Your task to perform on an android device: allow cookies in the chrome app Image 0: 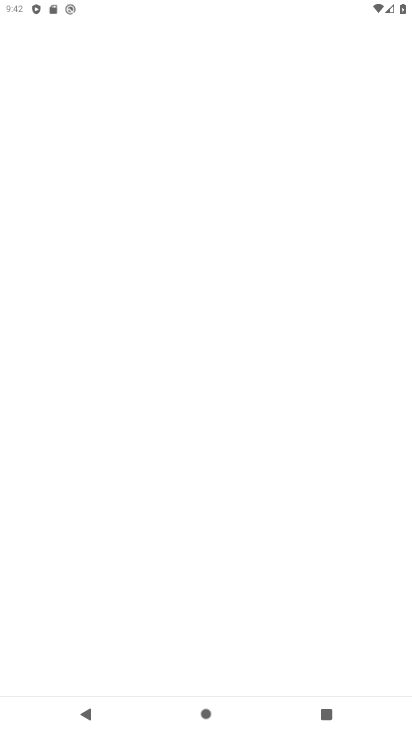
Step 0: click (297, 634)
Your task to perform on an android device: allow cookies in the chrome app Image 1: 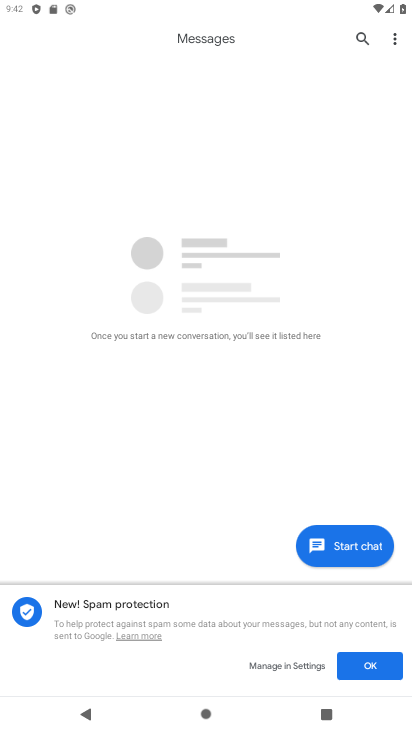
Step 1: press home button
Your task to perform on an android device: allow cookies in the chrome app Image 2: 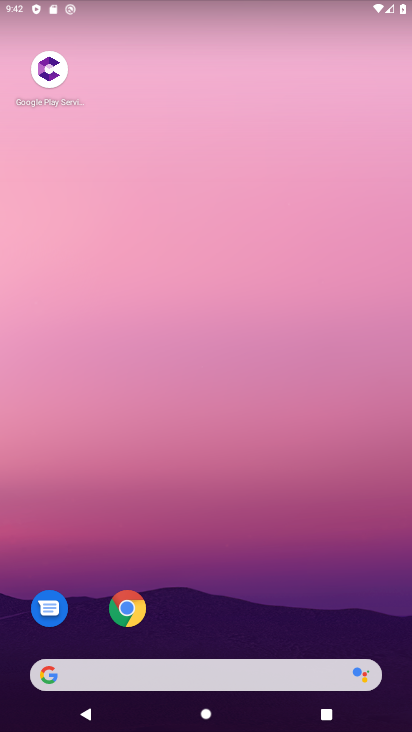
Step 2: click (121, 608)
Your task to perform on an android device: allow cookies in the chrome app Image 3: 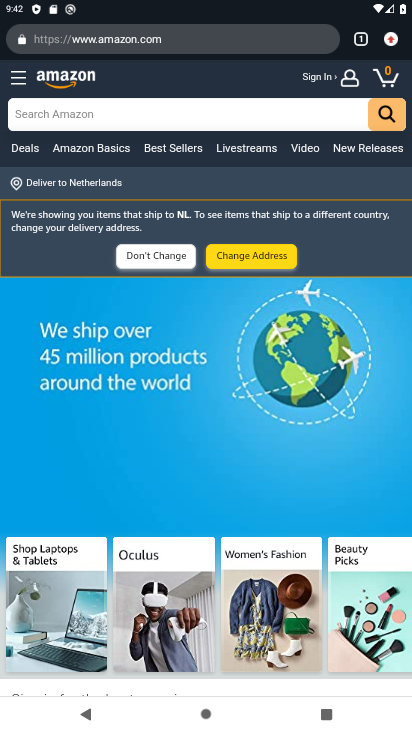
Step 3: click (390, 41)
Your task to perform on an android device: allow cookies in the chrome app Image 4: 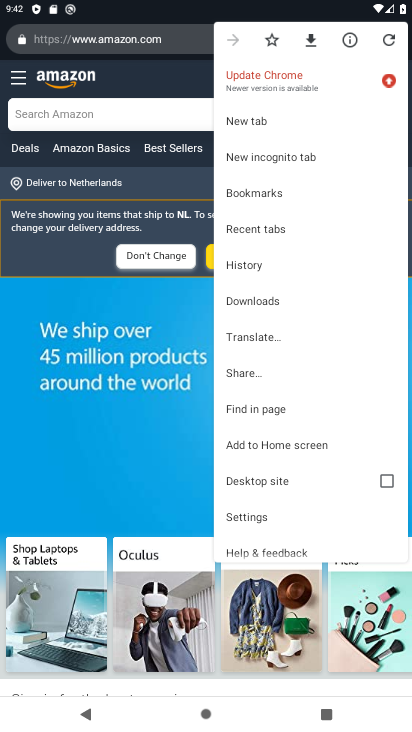
Step 4: click (245, 517)
Your task to perform on an android device: allow cookies in the chrome app Image 5: 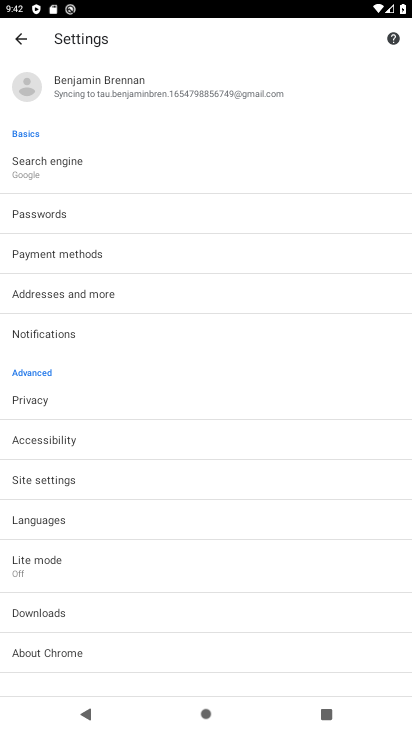
Step 5: click (44, 484)
Your task to perform on an android device: allow cookies in the chrome app Image 6: 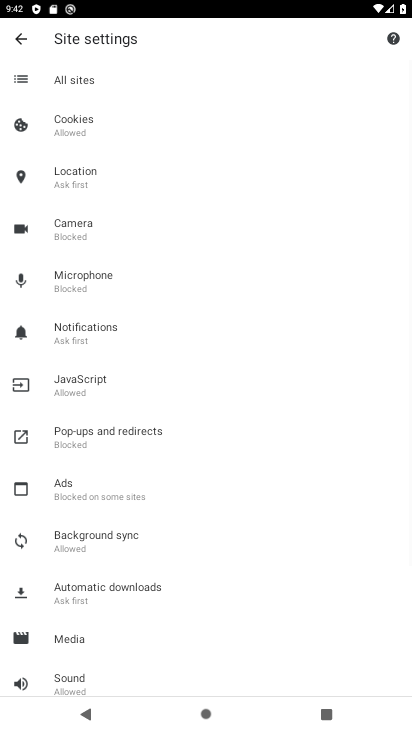
Step 6: click (151, 127)
Your task to perform on an android device: allow cookies in the chrome app Image 7: 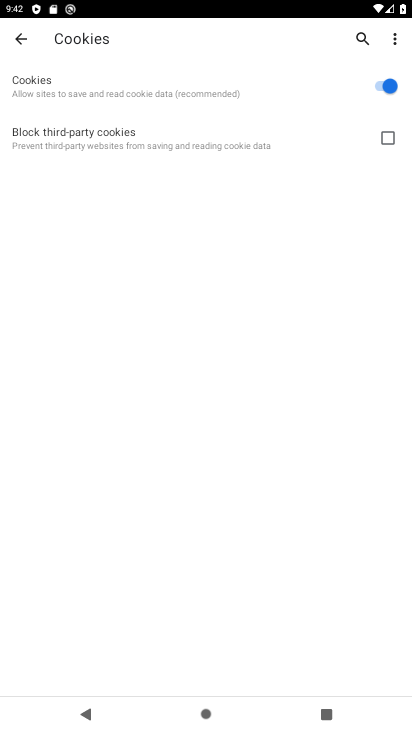
Step 7: task complete